Your task to perform on an android device: turn on data saver in the chrome app Image 0: 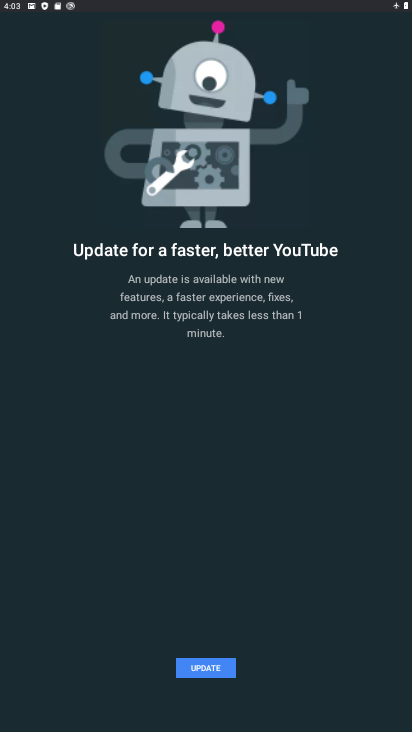
Step 0: press home button
Your task to perform on an android device: turn on data saver in the chrome app Image 1: 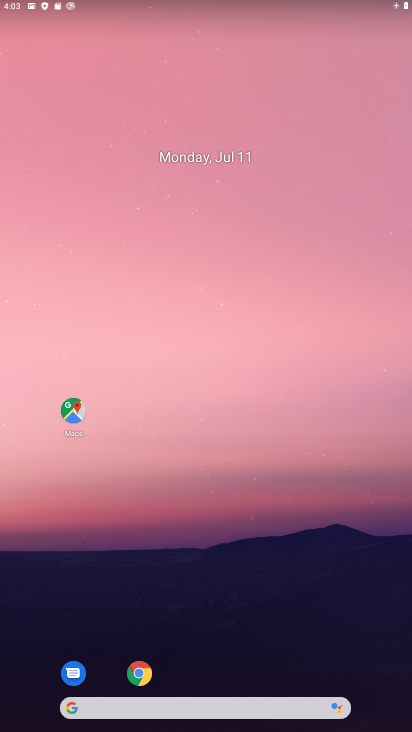
Step 1: drag from (230, 654) to (298, 263)
Your task to perform on an android device: turn on data saver in the chrome app Image 2: 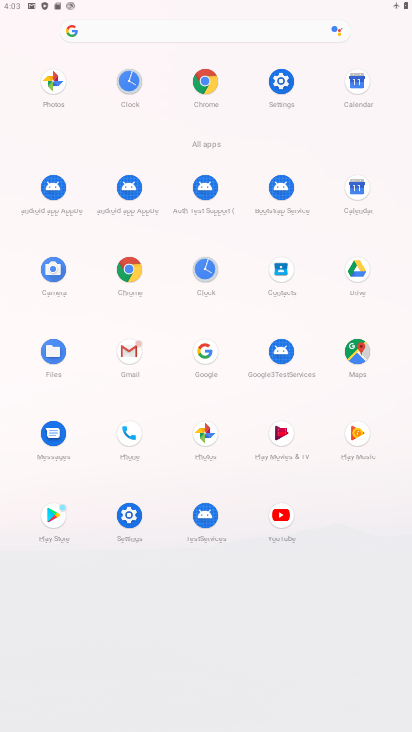
Step 2: click (136, 289)
Your task to perform on an android device: turn on data saver in the chrome app Image 3: 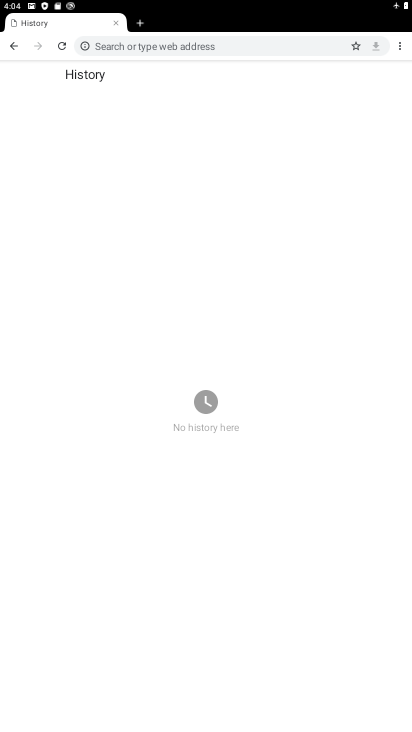
Step 3: drag from (403, 44) to (352, 210)
Your task to perform on an android device: turn on data saver in the chrome app Image 4: 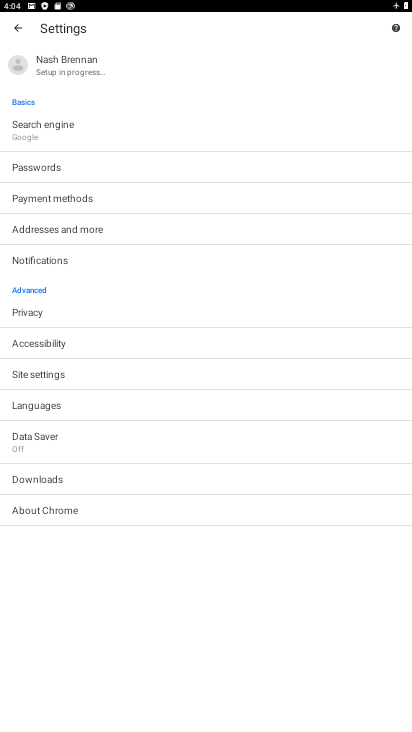
Step 4: click (115, 440)
Your task to perform on an android device: turn on data saver in the chrome app Image 5: 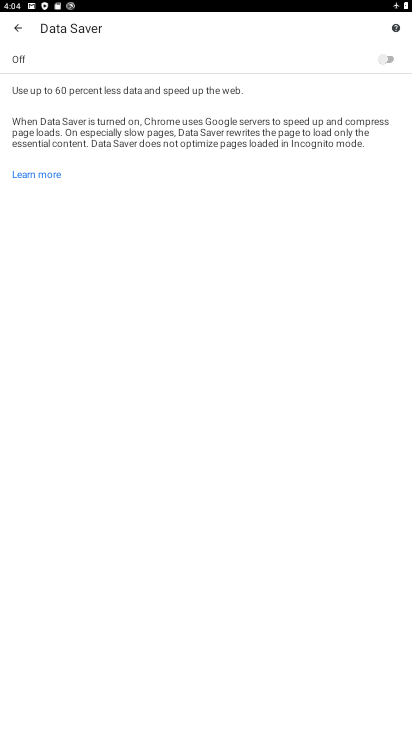
Step 5: click (399, 56)
Your task to perform on an android device: turn on data saver in the chrome app Image 6: 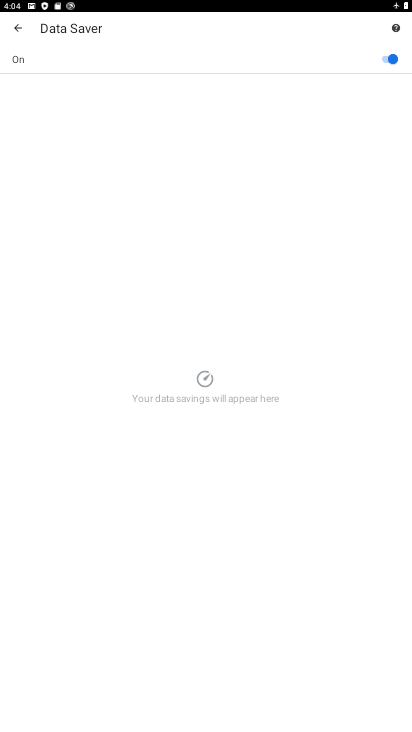
Step 6: task complete